Your task to perform on an android device: Go to eBay Image 0: 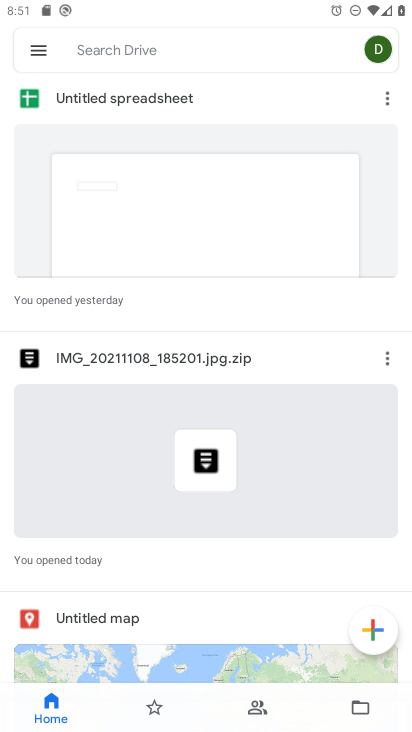
Step 0: press home button
Your task to perform on an android device: Go to eBay Image 1: 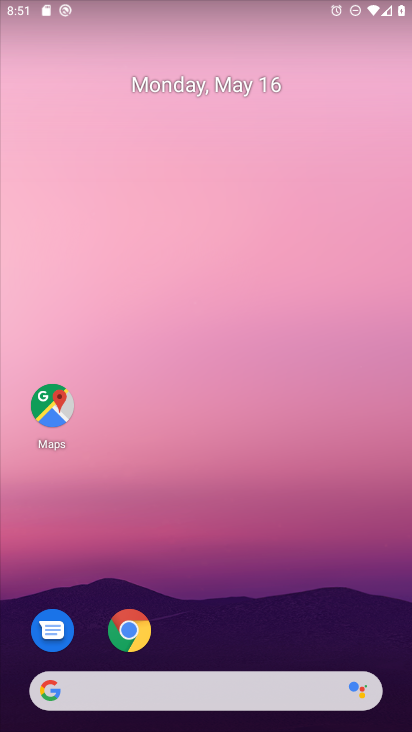
Step 1: click (125, 617)
Your task to perform on an android device: Go to eBay Image 2: 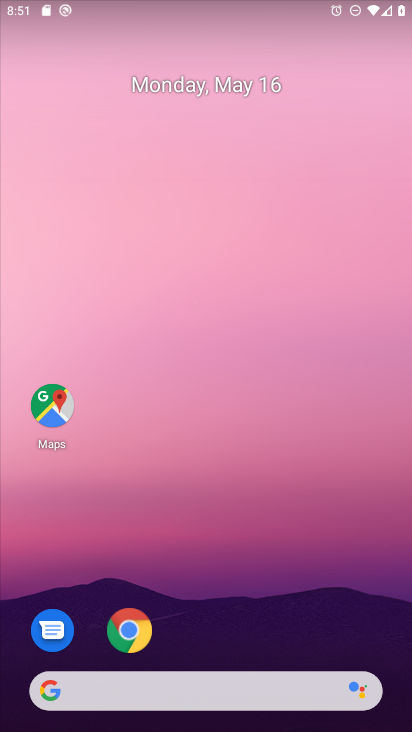
Step 2: click (125, 617)
Your task to perform on an android device: Go to eBay Image 3: 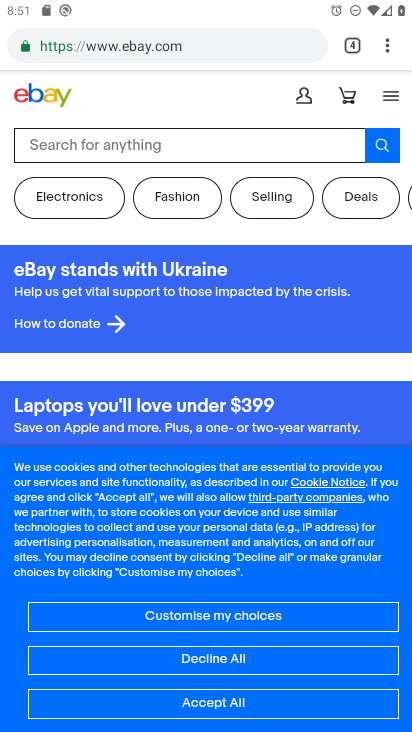
Step 3: task complete